Your task to perform on an android device: turn pop-ups on in chrome Image 0: 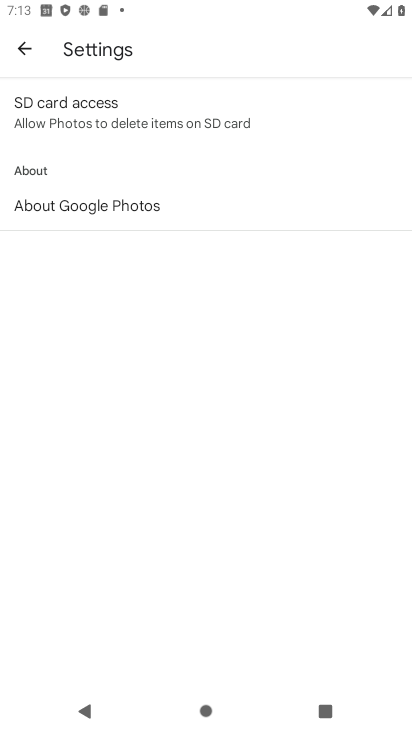
Step 0: press home button
Your task to perform on an android device: turn pop-ups on in chrome Image 1: 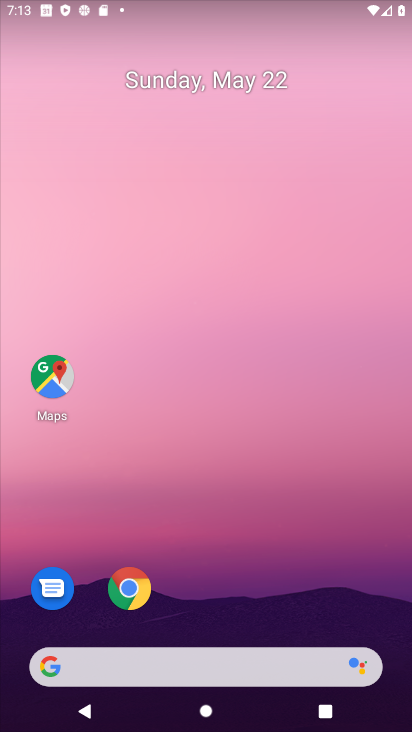
Step 1: click (132, 589)
Your task to perform on an android device: turn pop-ups on in chrome Image 2: 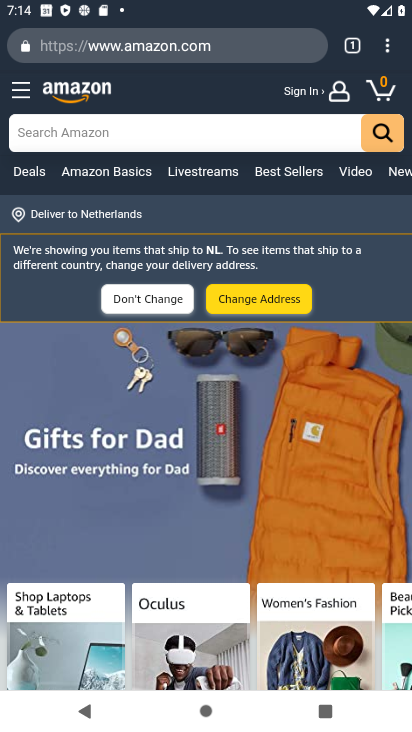
Step 2: click (388, 43)
Your task to perform on an android device: turn pop-ups on in chrome Image 3: 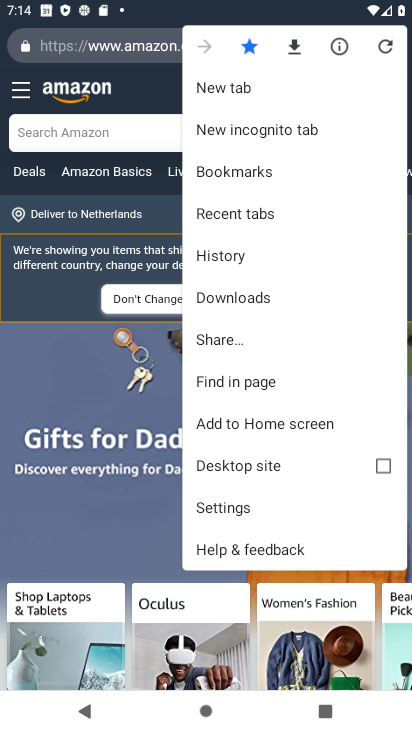
Step 3: click (241, 502)
Your task to perform on an android device: turn pop-ups on in chrome Image 4: 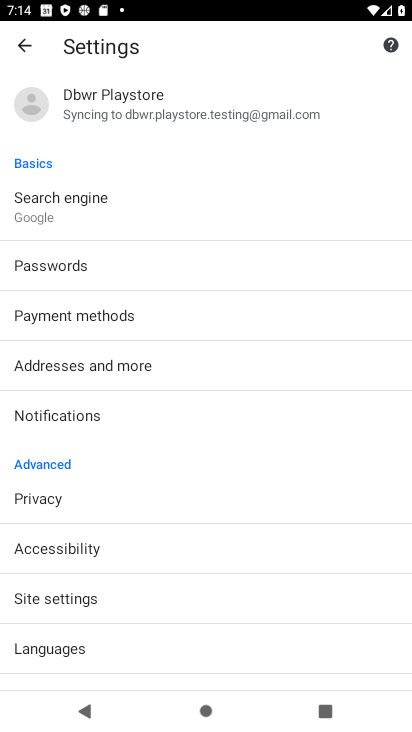
Step 4: click (64, 591)
Your task to perform on an android device: turn pop-ups on in chrome Image 5: 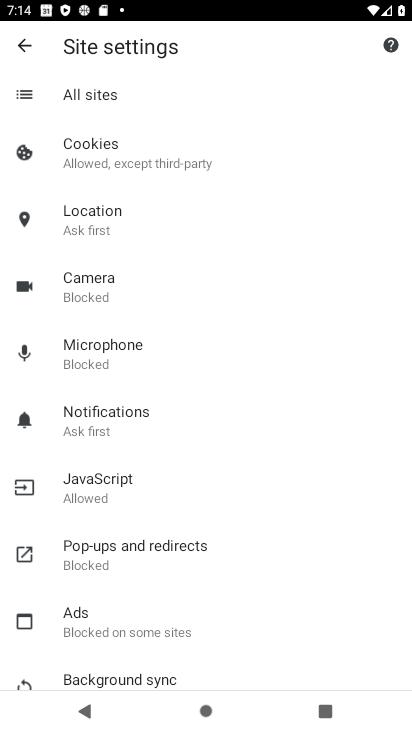
Step 5: click (124, 550)
Your task to perform on an android device: turn pop-ups on in chrome Image 6: 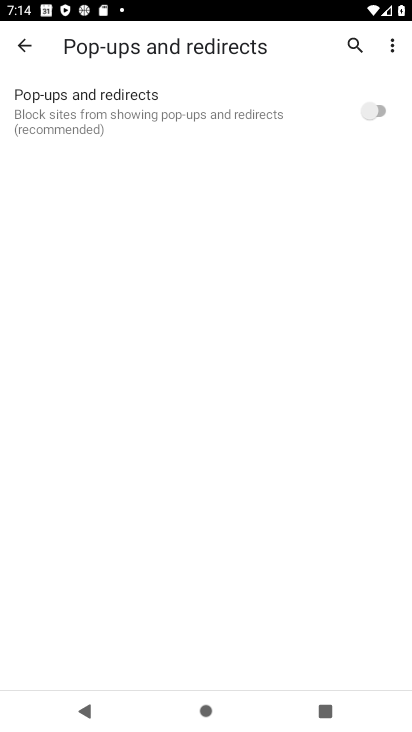
Step 6: click (373, 109)
Your task to perform on an android device: turn pop-ups on in chrome Image 7: 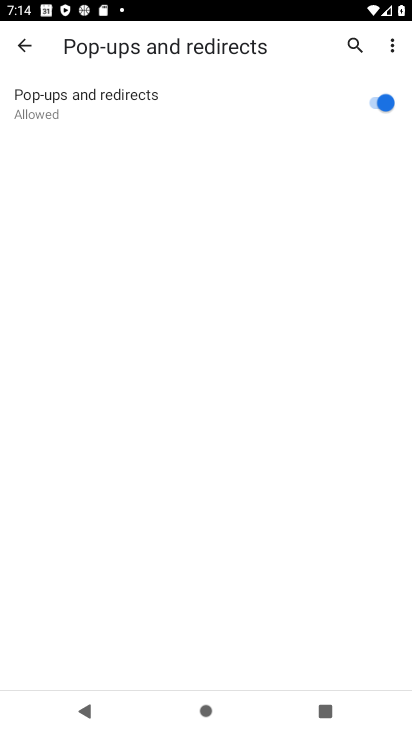
Step 7: task complete